Your task to perform on an android device: toggle sleep mode Image 0: 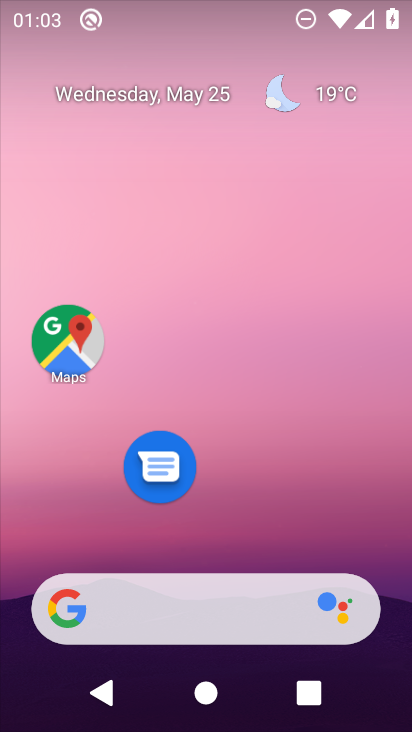
Step 0: drag from (202, 539) to (212, 216)
Your task to perform on an android device: toggle sleep mode Image 1: 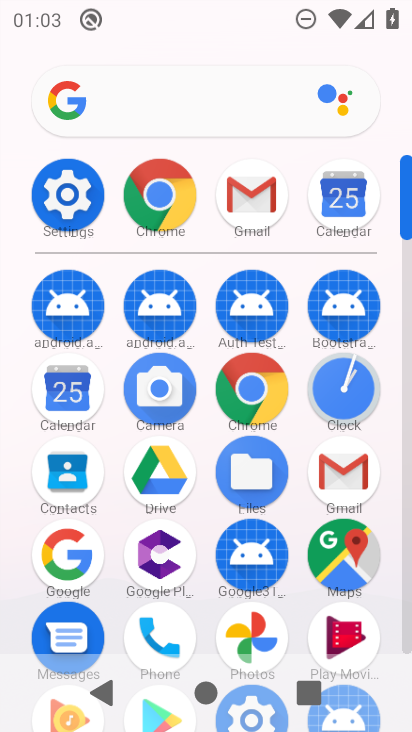
Step 1: click (67, 189)
Your task to perform on an android device: toggle sleep mode Image 2: 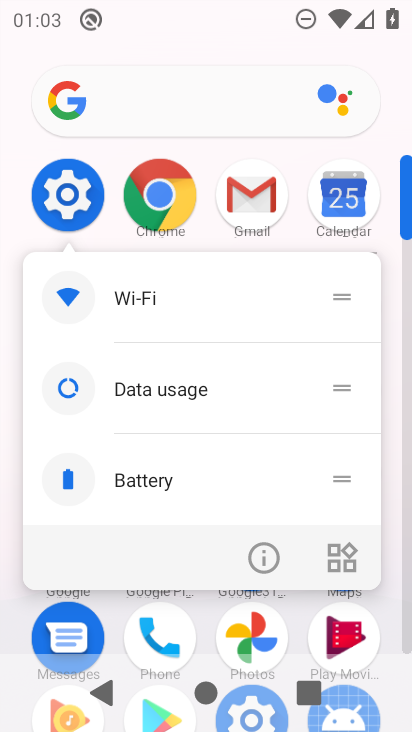
Step 2: click (255, 552)
Your task to perform on an android device: toggle sleep mode Image 3: 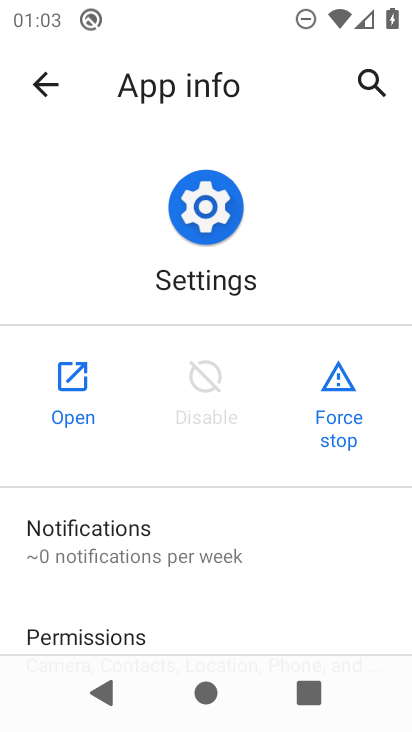
Step 3: click (87, 377)
Your task to perform on an android device: toggle sleep mode Image 4: 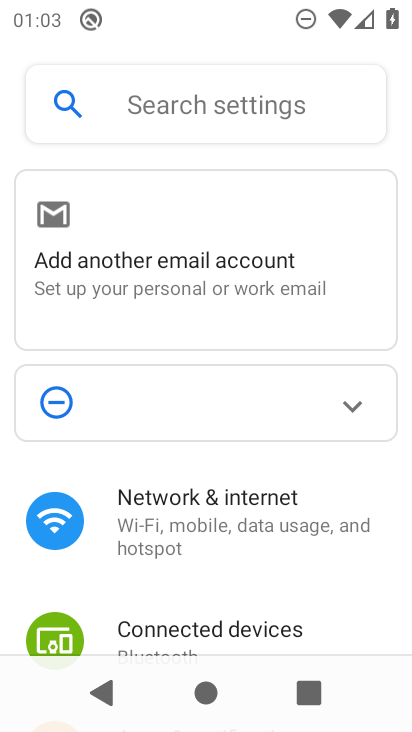
Step 4: drag from (190, 558) to (233, 202)
Your task to perform on an android device: toggle sleep mode Image 5: 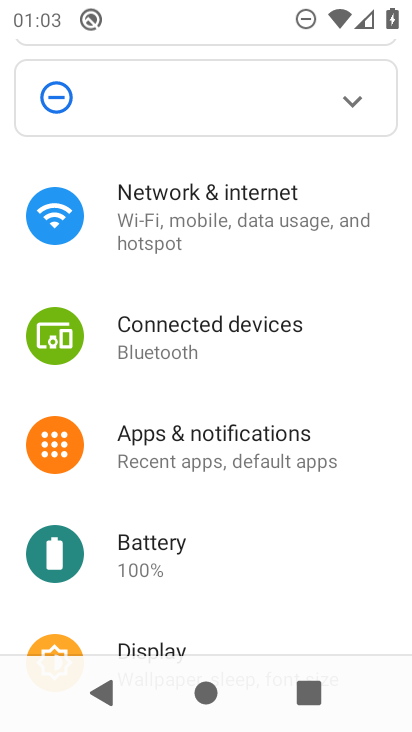
Step 5: drag from (226, 585) to (305, 111)
Your task to perform on an android device: toggle sleep mode Image 6: 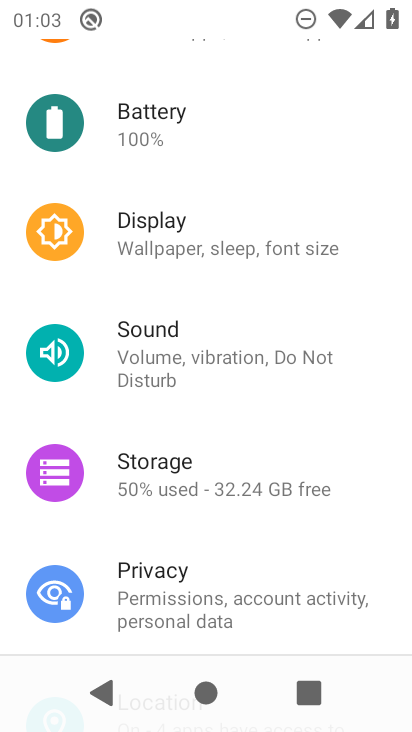
Step 6: click (184, 237)
Your task to perform on an android device: toggle sleep mode Image 7: 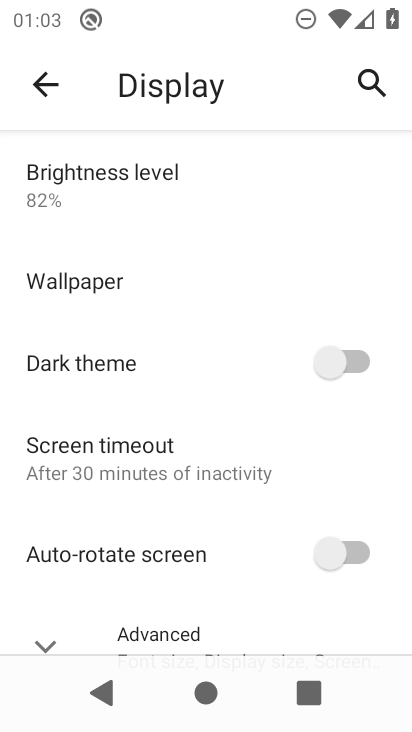
Step 7: click (141, 454)
Your task to perform on an android device: toggle sleep mode Image 8: 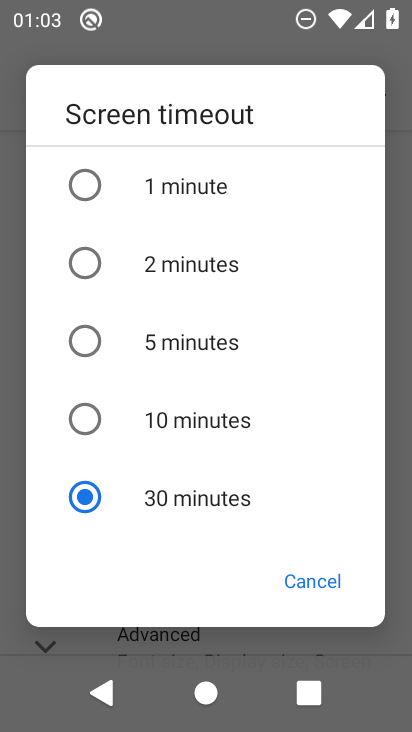
Step 8: task complete